Your task to perform on an android device: all mails in gmail Image 0: 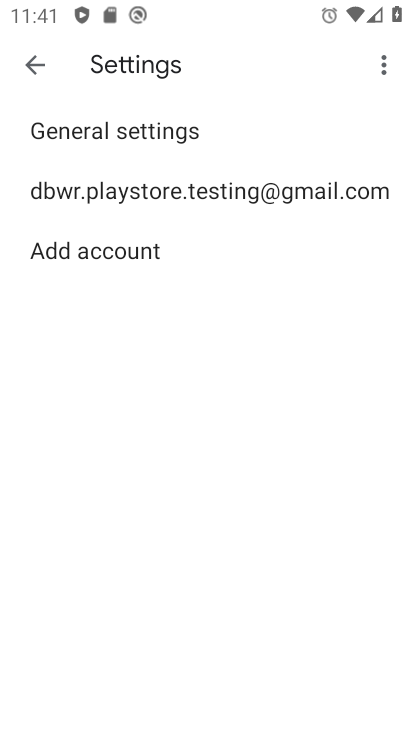
Step 0: press home button
Your task to perform on an android device: all mails in gmail Image 1: 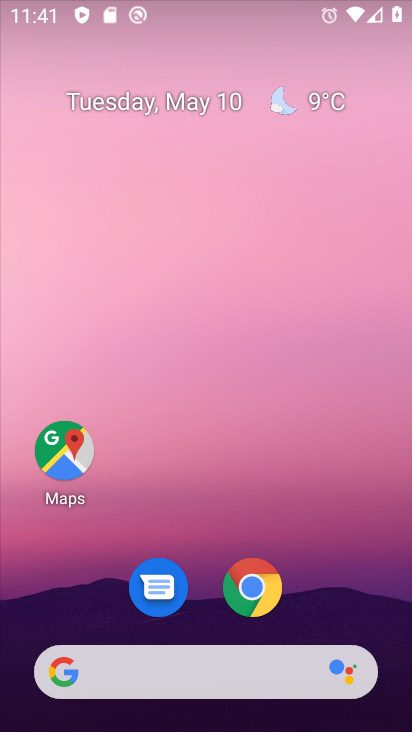
Step 1: drag from (312, 592) to (372, 0)
Your task to perform on an android device: all mails in gmail Image 2: 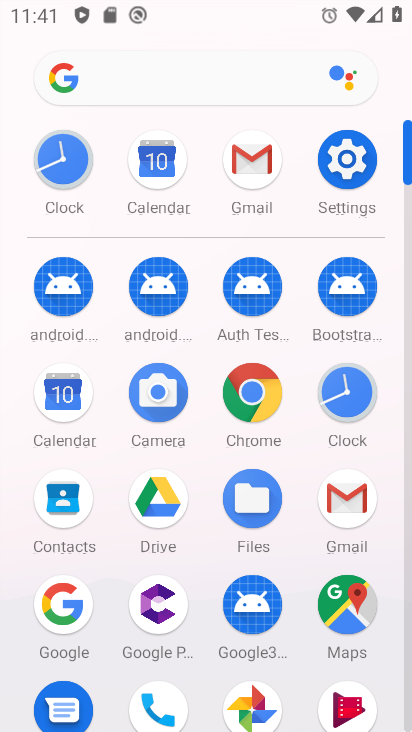
Step 2: click (245, 164)
Your task to perform on an android device: all mails in gmail Image 3: 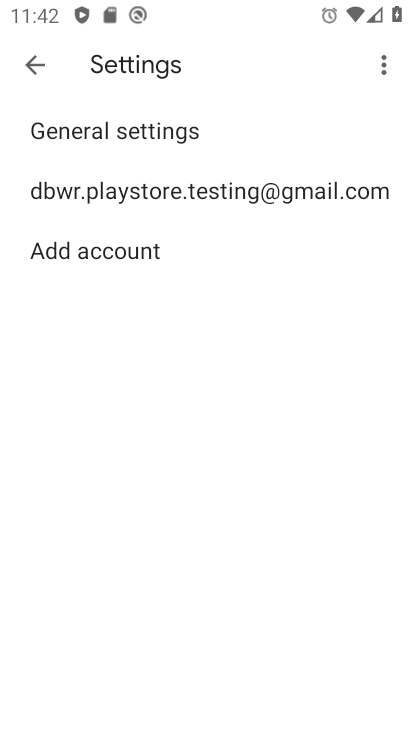
Step 3: click (33, 78)
Your task to perform on an android device: all mails in gmail Image 4: 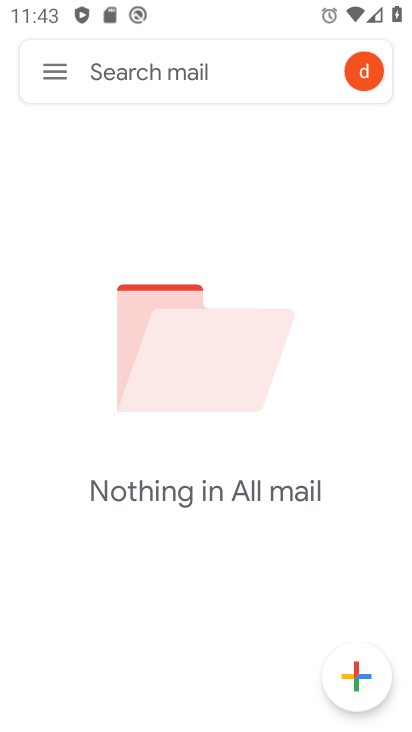
Step 4: click (50, 74)
Your task to perform on an android device: all mails in gmail Image 5: 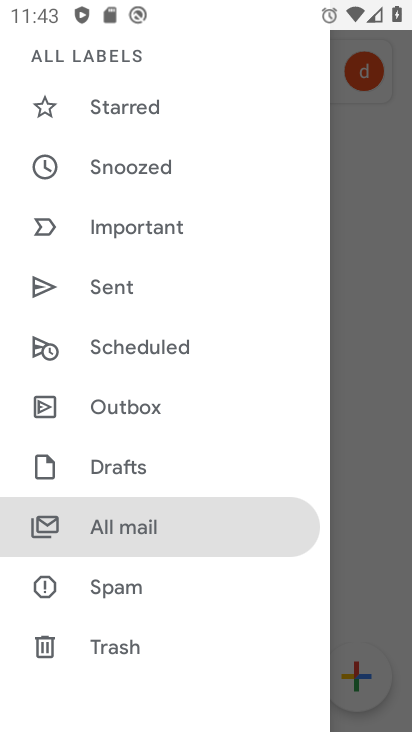
Step 5: click (122, 528)
Your task to perform on an android device: all mails in gmail Image 6: 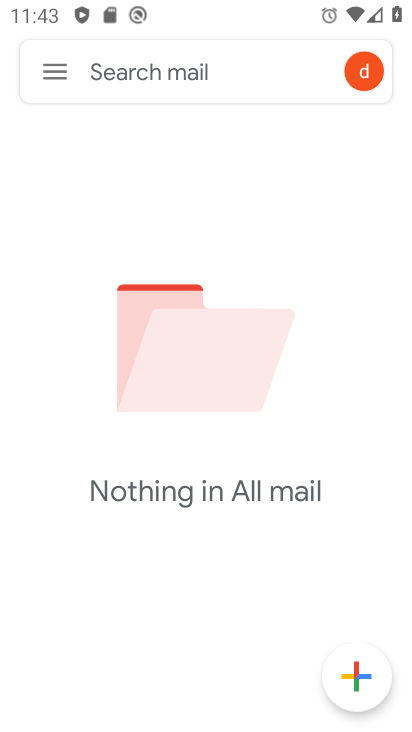
Step 6: task complete